Your task to perform on an android device: Open network settings Image 0: 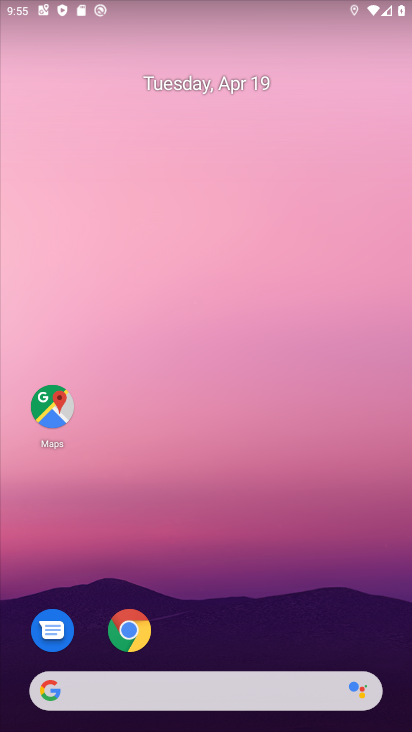
Step 0: drag from (118, 225) to (90, 56)
Your task to perform on an android device: Open network settings Image 1: 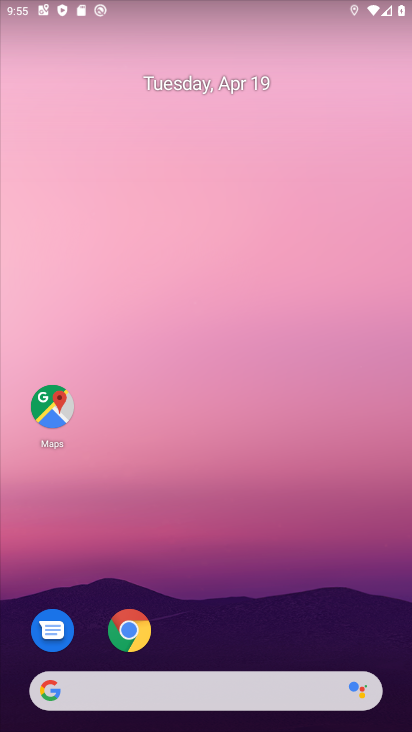
Step 1: drag from (229, 612) to (91, 37)
Your task to perform on an android device: Open network settings Image 2: 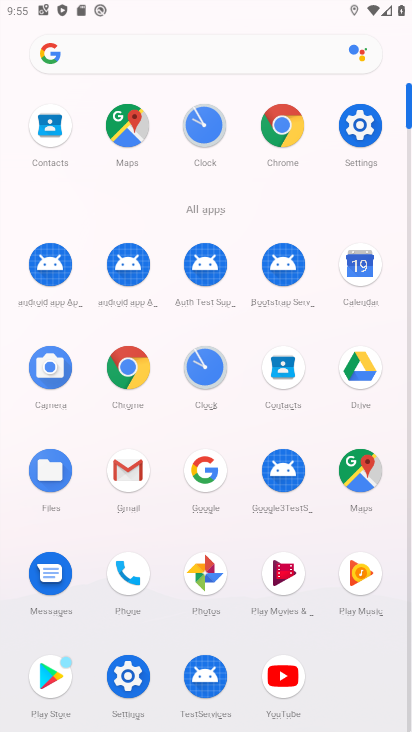
Step 2: click (345, 127)
Your task to perform on an android device: Open network settings Image 3: 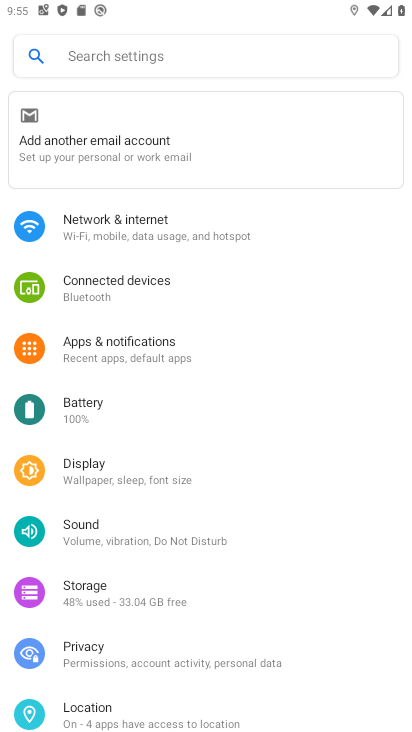
Step 3: click (178, 229)
Your task to perform on an android device: Open network settings Image 4: 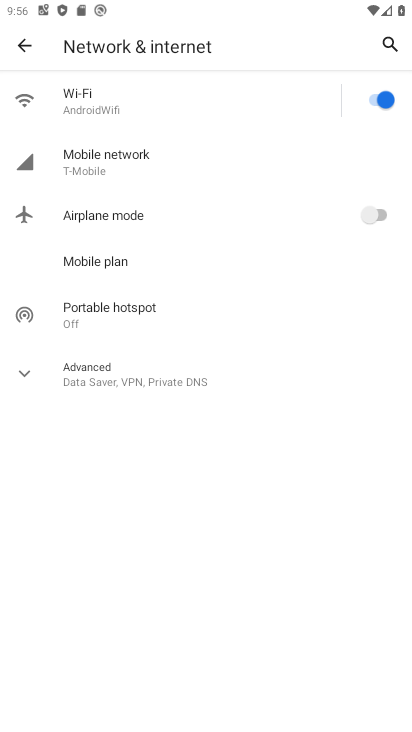
Step 4: task complete